Your task to perform on an android device: toggle data saver in the chrome app Image 0: 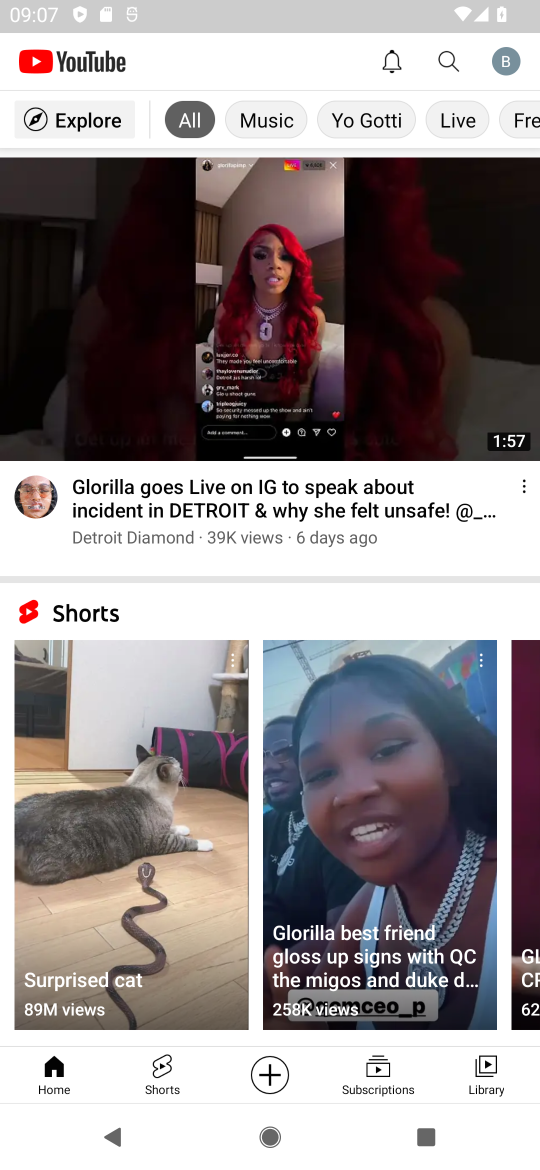
Step 0: press home button
Your task to perform on an android device: toggle data saver in the chrome app Image 1: 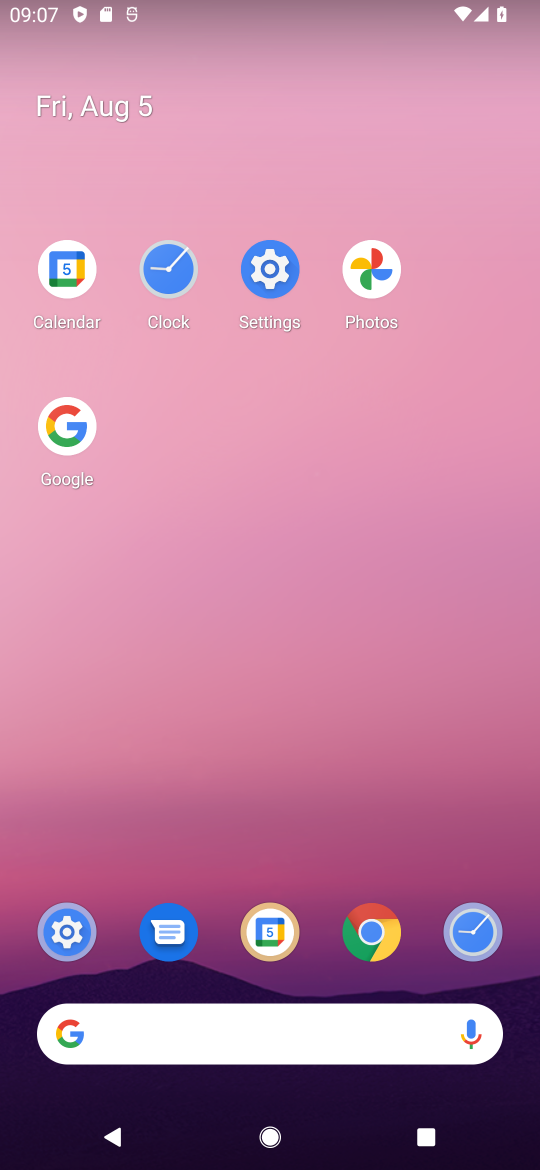
Step 1: click (386, 943)
Your task to perform on an android device: toggle data saver in the chrome app Image 2: 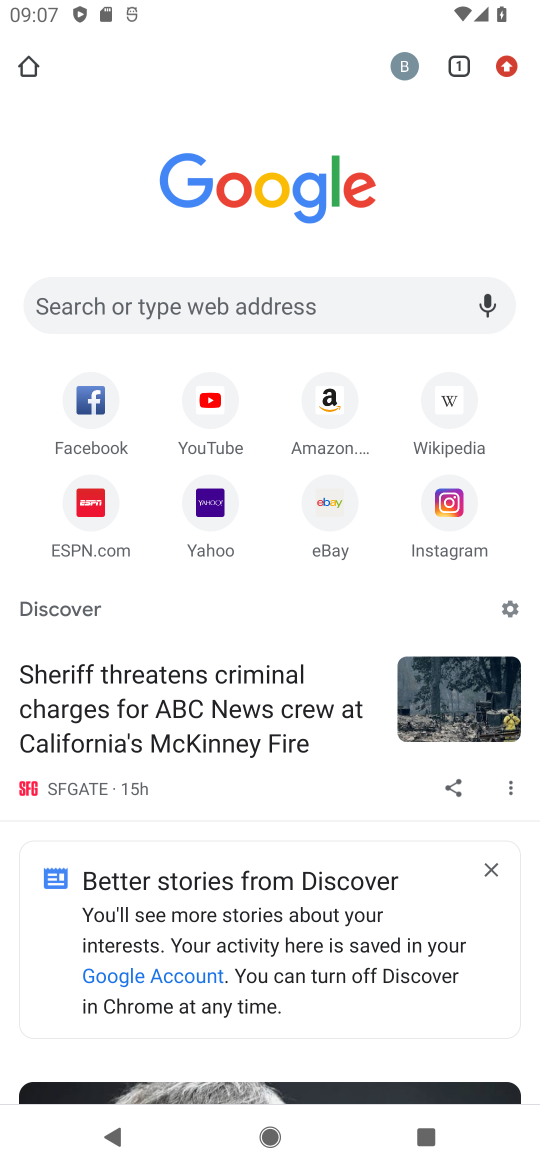
Step 2: click (503, 74)
Your task to perform on an android device: toggle data saver in the chrome app Image 3: 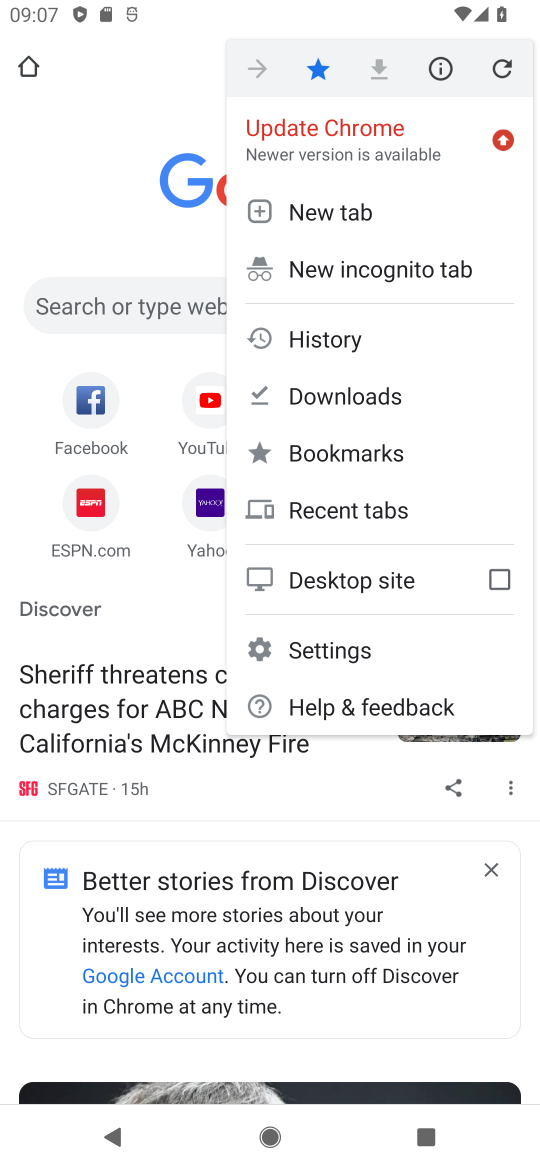
Step 3: click (501, 78)
Your task to perform on an android device: toggle data saver in the chrome app Image 4: 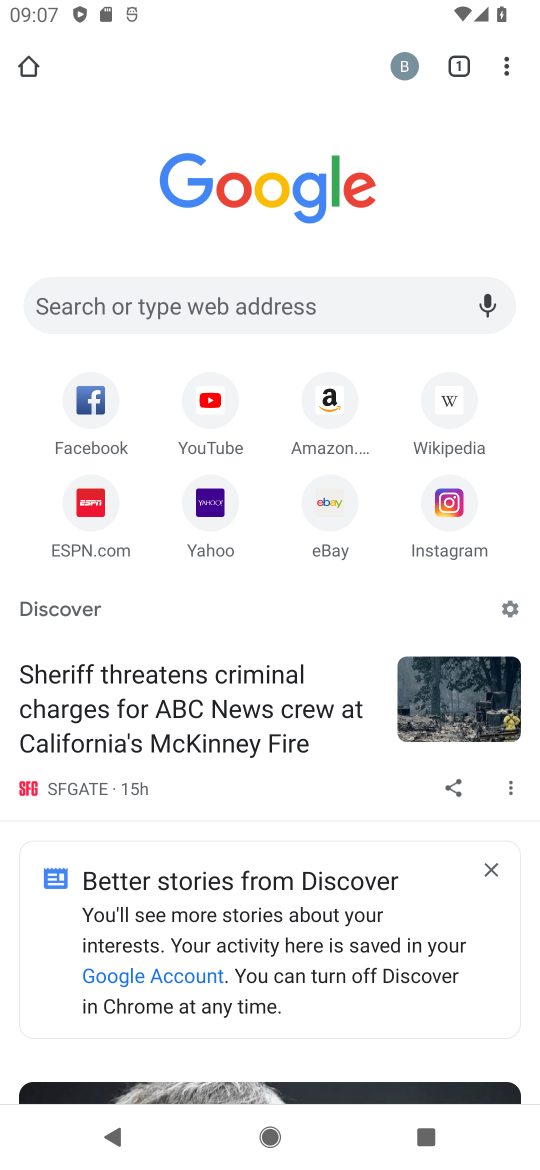
Step 4: click (507, 64)
Your task to perform on an android device: toggle data saver in the chrome app Image 5: 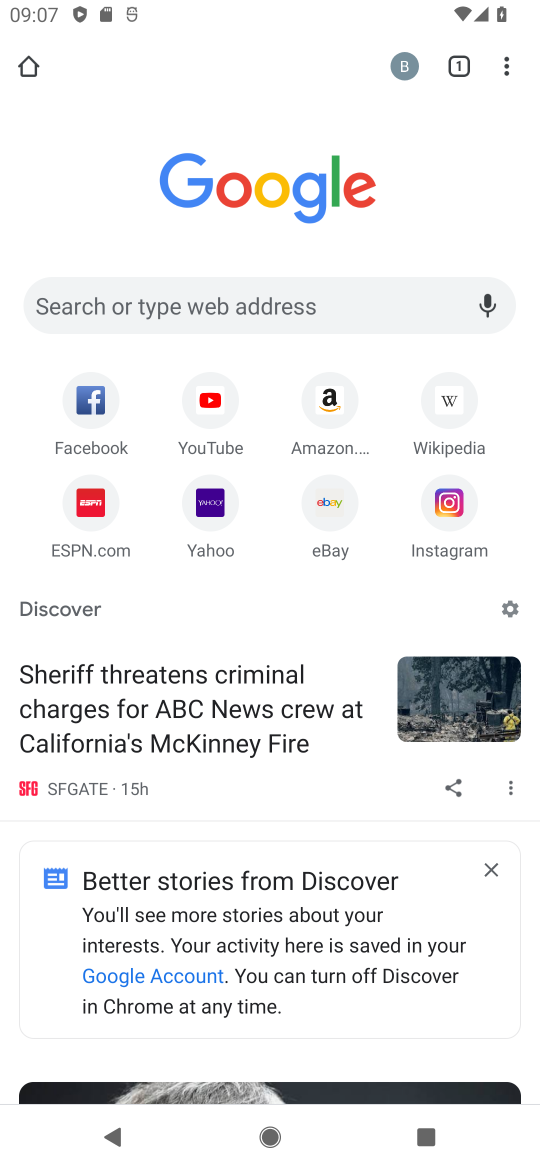
Step 5: click (487, 59)
Your task to perform on an android device: toggle data saver in the chrome app Image 6: 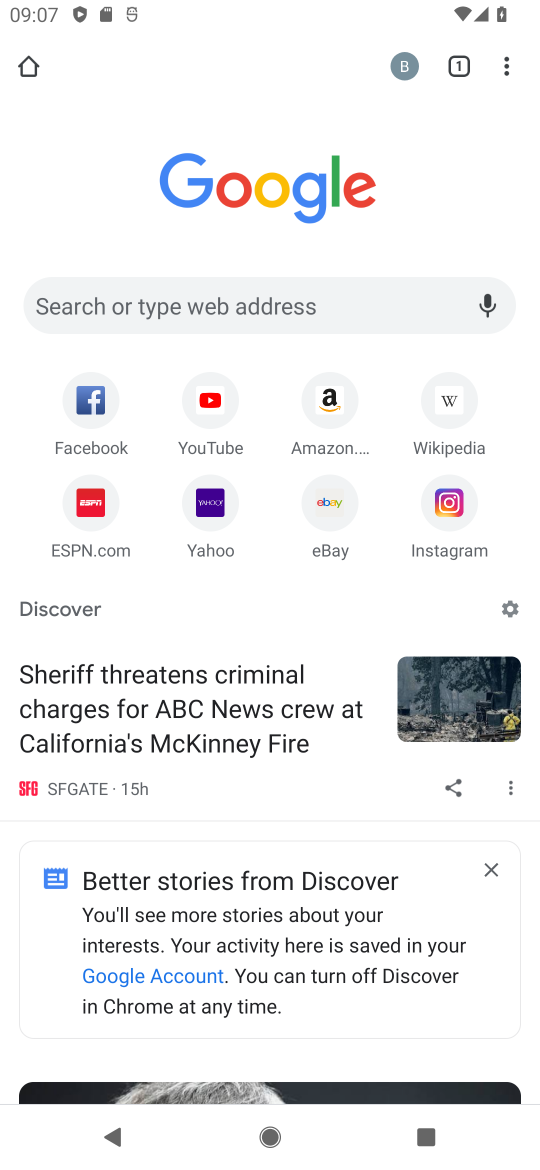
Step 6: click (506, 68)
Your task to perform on an android device: toggle data saver in the chrome app Image 7: 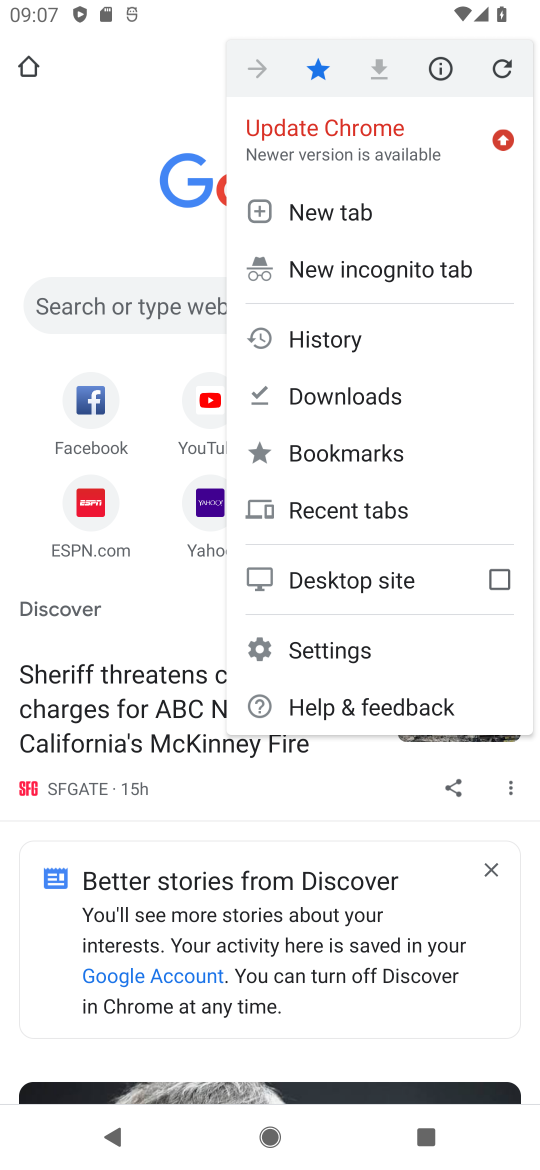
Step 7: click (339, 643)
Your task to perform on an android device: toggle data saver in the chrome app Image 8: 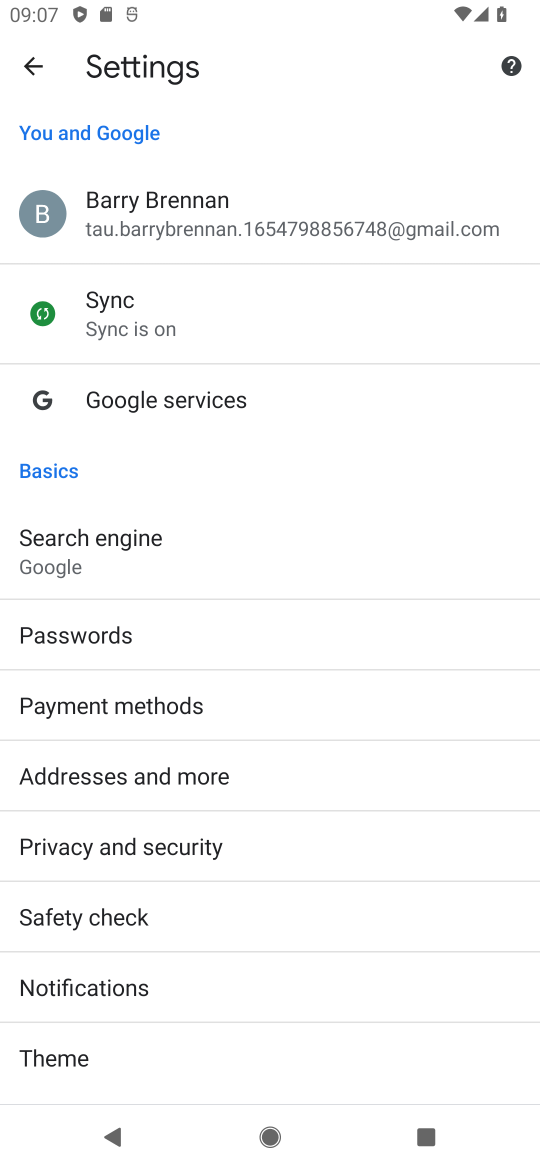
Step 8: drag from (190, 884) to (213, 552)
Your task to perform on an android device: toggle data saver in the chrome app Image 9: 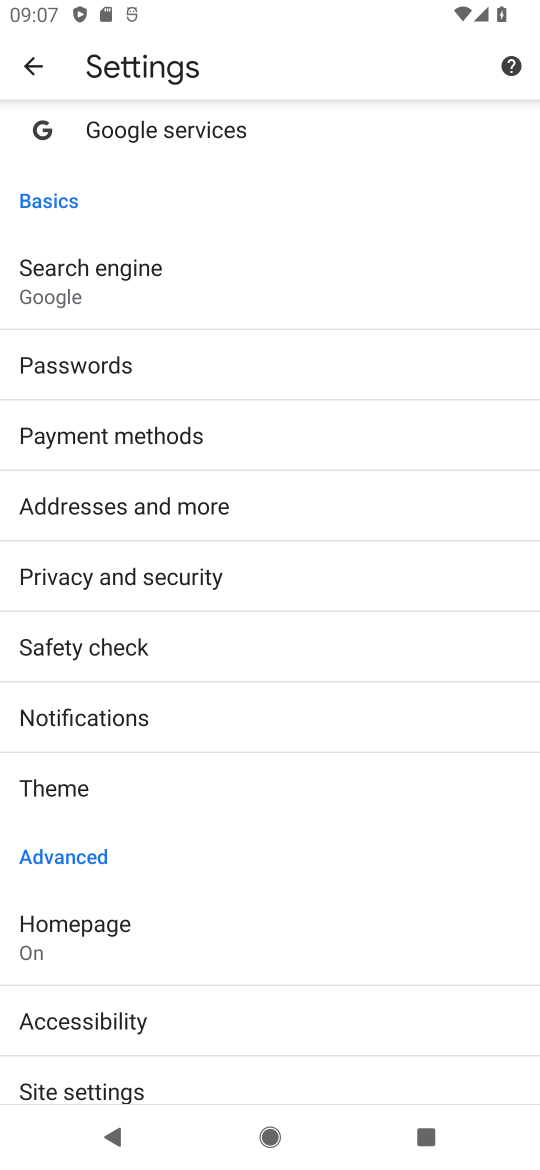
Step 9: drag from (222, 926) to (215, 348)
Your task to perform on an android device: toggle data saver in the chrome app Image 10: 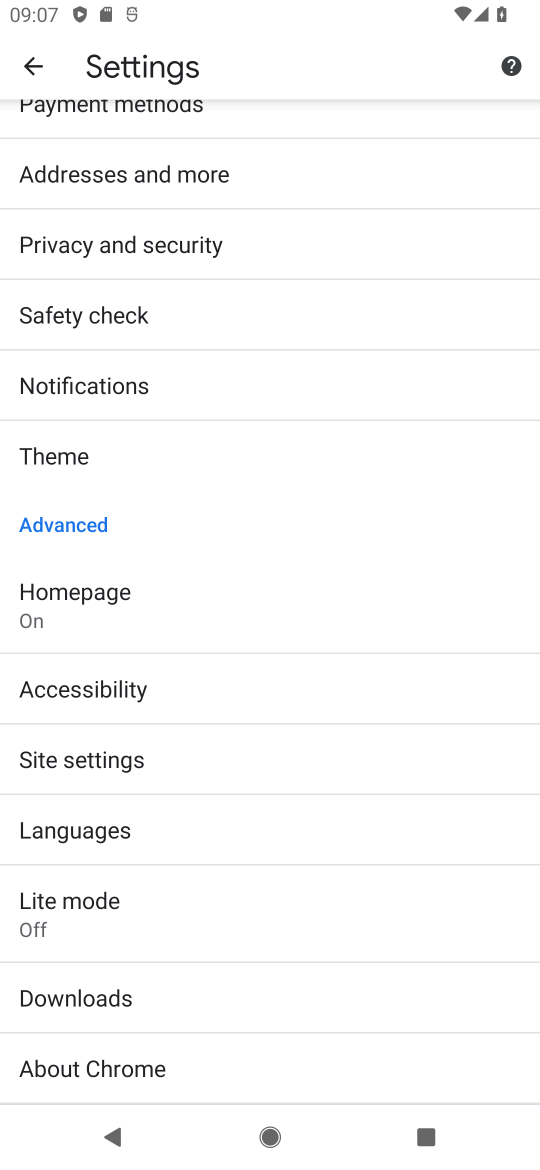
Step 10: click (160, 902)
Your task to perform on an android device: toggle data saver in the chrome app Image 11: 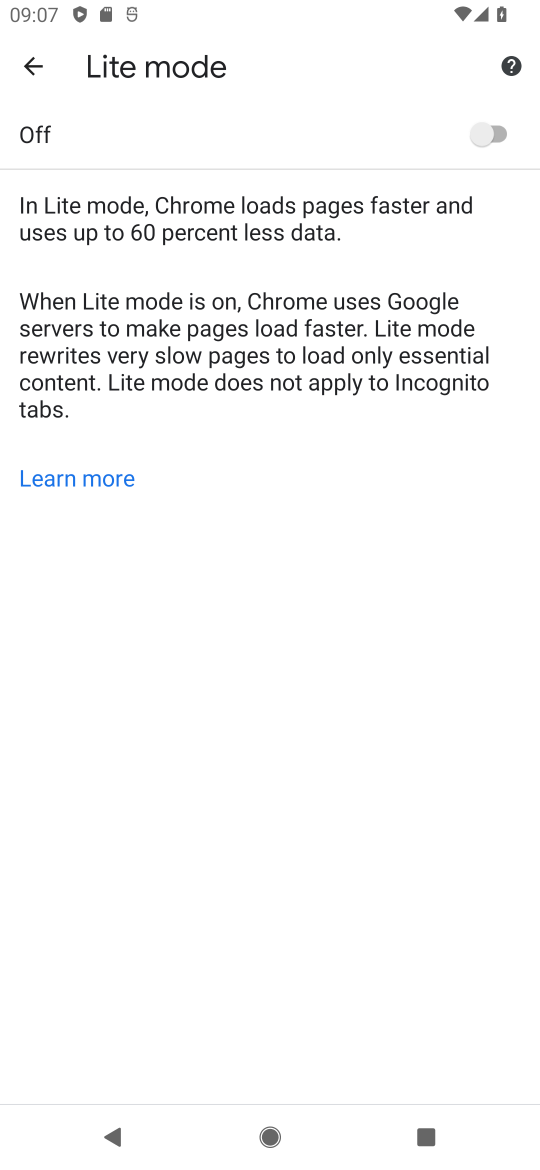
Step 11: click (468, 147)
Your task to perform on an android device: toggle data saver in the chrome app Image 12: 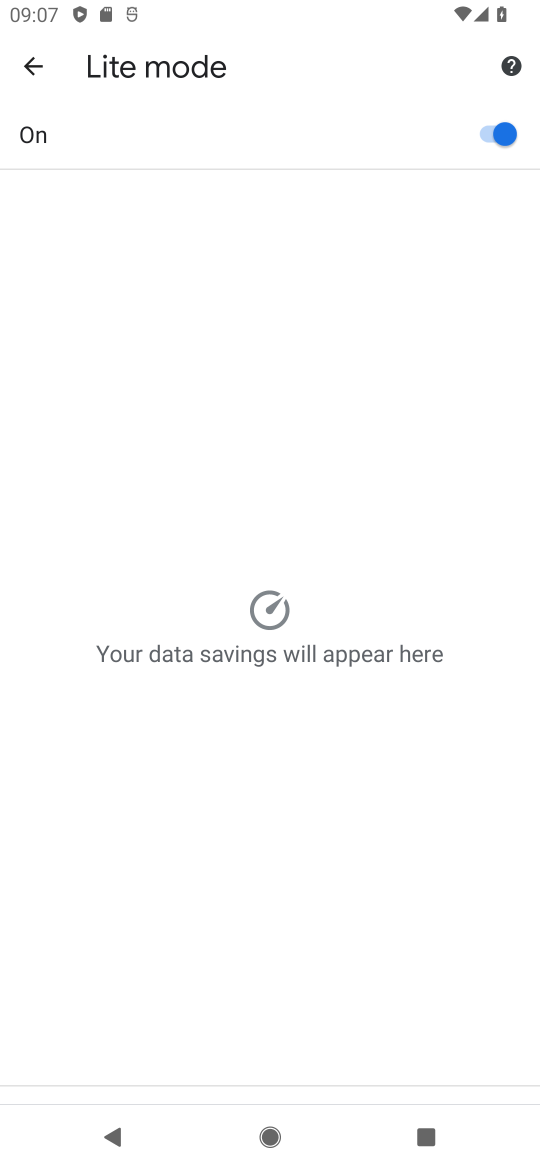
Step 12: task complete